Your task to perform on an android device: Open calendar and show me the first week of next month Image 0: 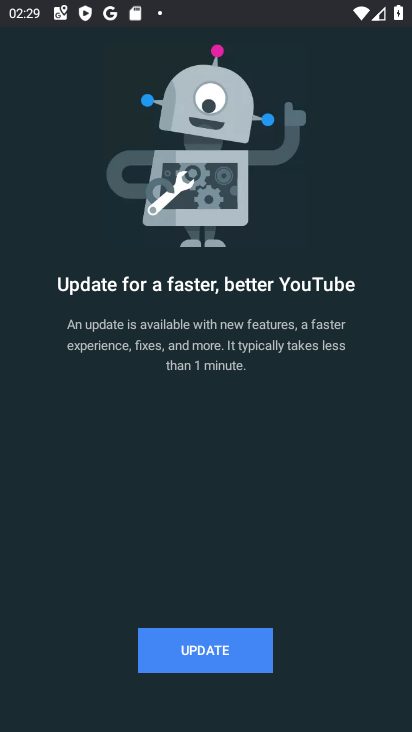
Step 0: drag from (163, 635) to (184, 276)
Your task to perform on an android device: Open calendar and show me the first week of next month Image 1: 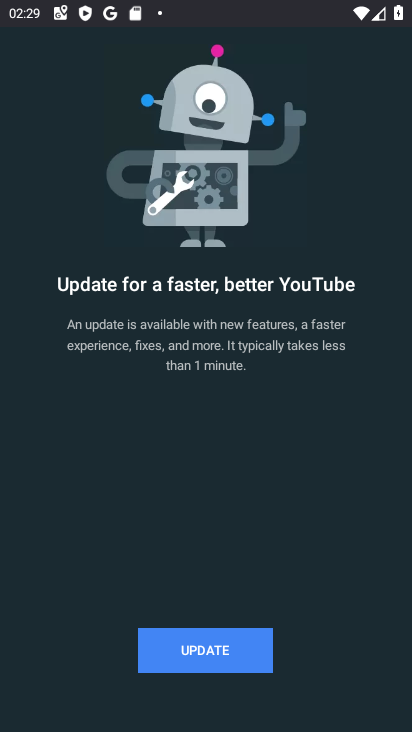
Step 1: press home button
Your task to perform on an android device: Open calendar and show me the first week of next month Image 2: 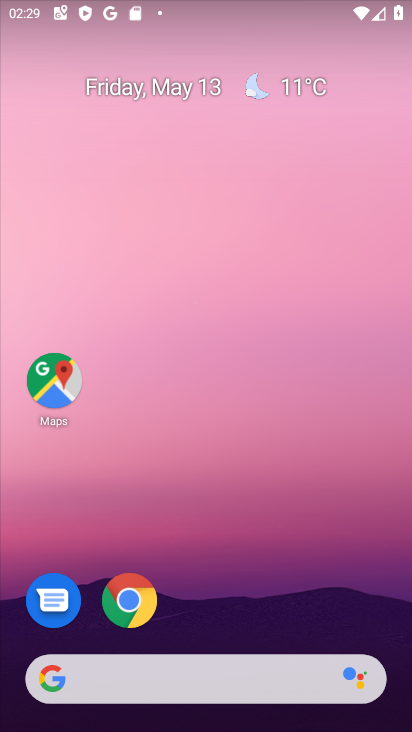
Step 2: drag from (196, 643) to (279, 207)
Your task to perform on an android device: Open calendar and show me the first week of next month Image 3: 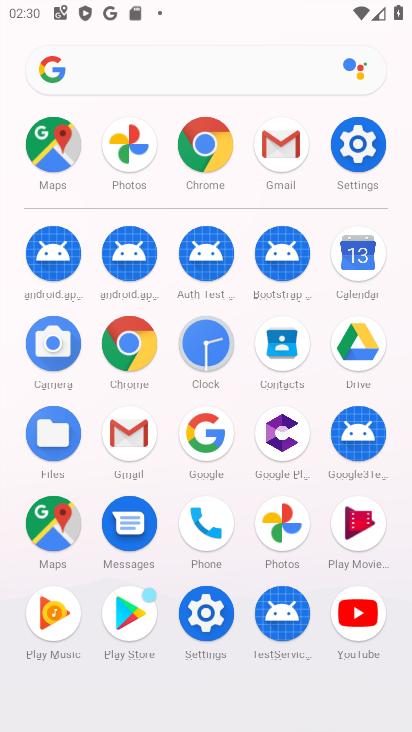
Step 3: click (349, 265)
Your task to perform on an android device: Open calendar and show me the first week of next month Image 4: 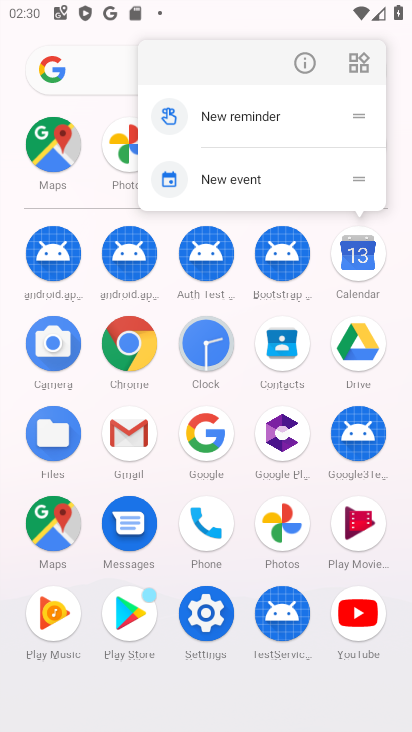
Step 4: click (305, 47)
Your task to perform on an android device: Open calendar and show me the first week of next month Image 5: 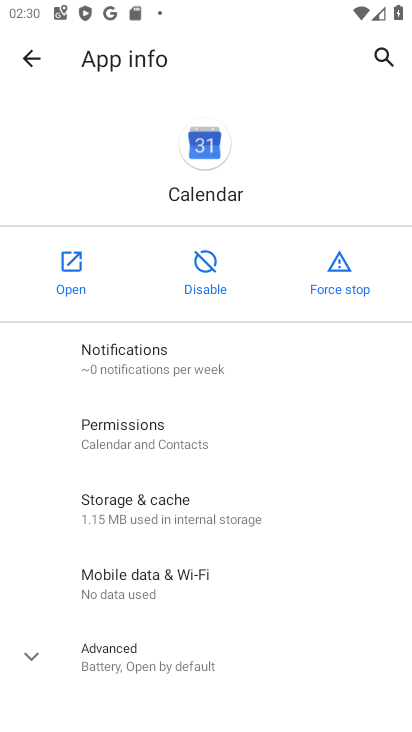
Step 5: click (78, 252)
Your task to perform on an android device: Open calendar and show me the first week of next month Image 6: 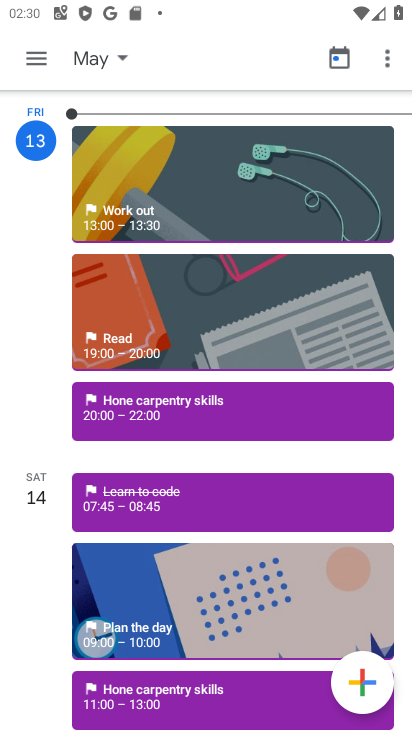
Step 6: click (102, 63)
Your task to perform on an android device: Open calendar and show me the first week of next month Image 7: 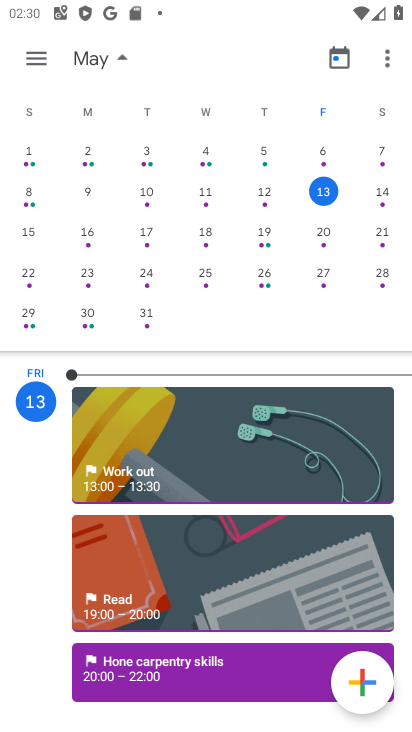
Step 7: drag from (357, 163) to (21, 193)
Your task to perform on an android device: Open calendar and show me the first week of next month Image 8: 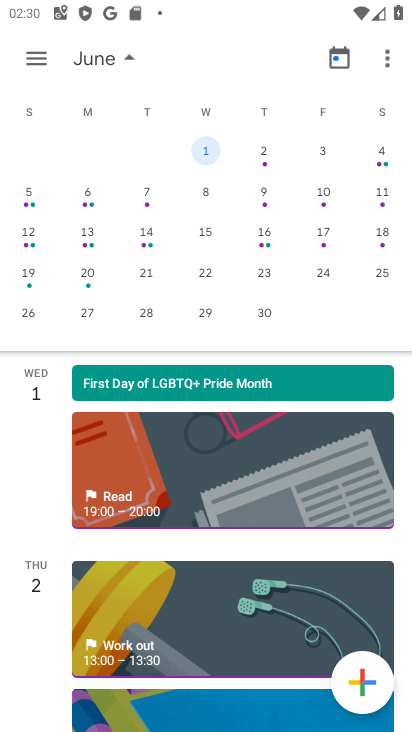
Step 8: click (258, 156)
Your task to perform on an android device: Open calendar and show me the first week of next month Image 9: 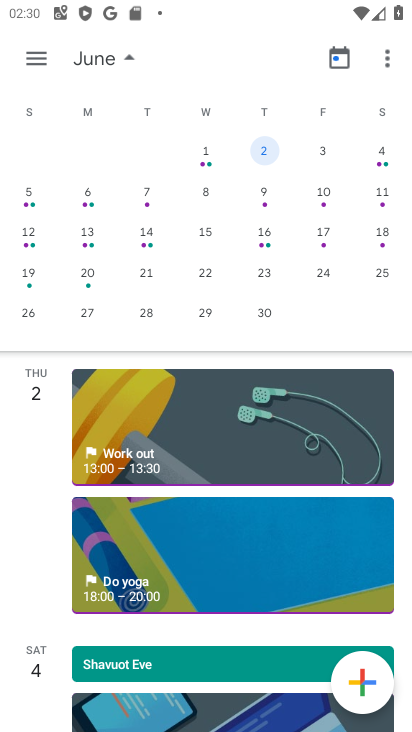
Step 9: task complete